Your task to perform on an android device: turn on the 24-hour format for clock Image 0: 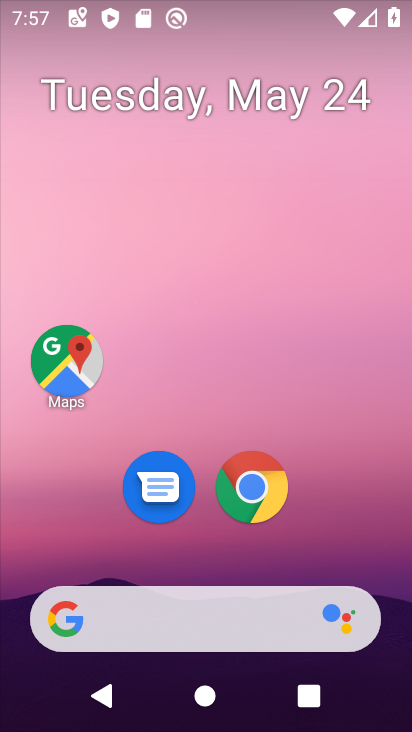
Step 0: drag from (93, 420) to (264, 117)
Your task to perform on an android device: turn on the 24-hour format for clock Image 1: 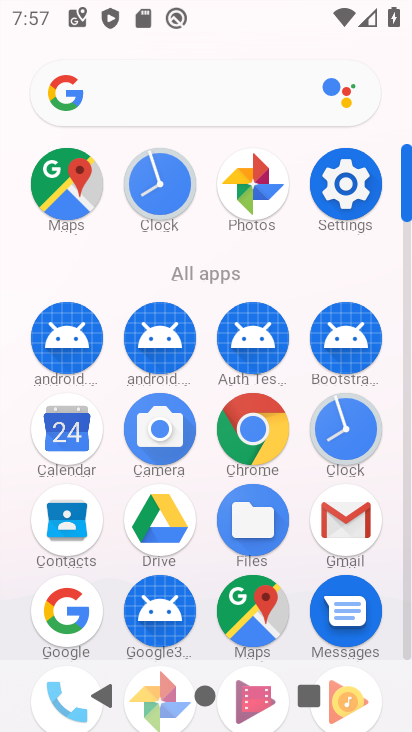
Step 1: click (348, 434)
Your task to perform on an android device: turn on the 24-hour format for clock Image 2: 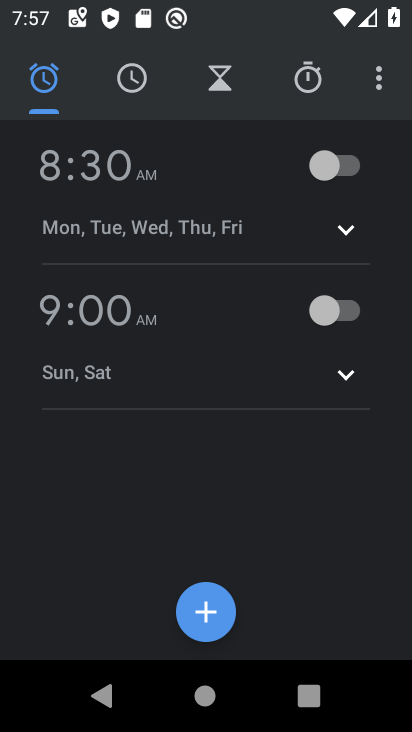
Step 2: click (377, 82)
Your task to perform on an android device: turn on the 24-hour format for clock Image 3: 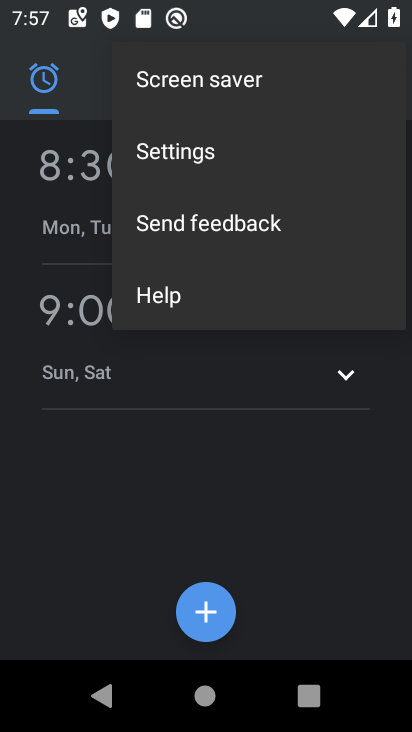
Step 3: click (221, 153)
Your task to perform on an android device: turn on the 24-hour format for clock Image 4: 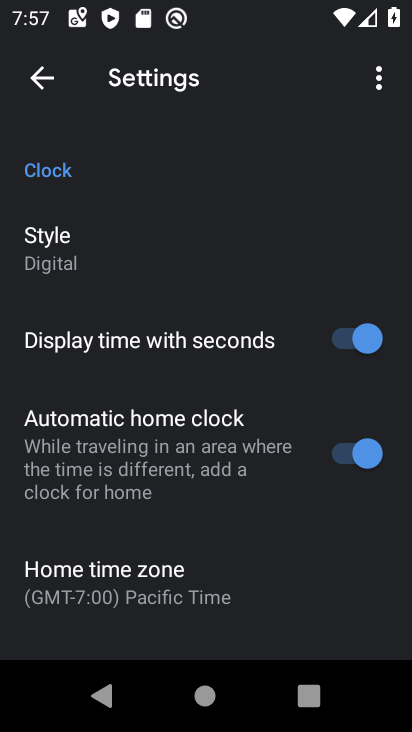
Step 4: drag from (95, 599) to (136, 215)
Your task to perform on an android device: turn on the 24-hour format for clock Image 5: 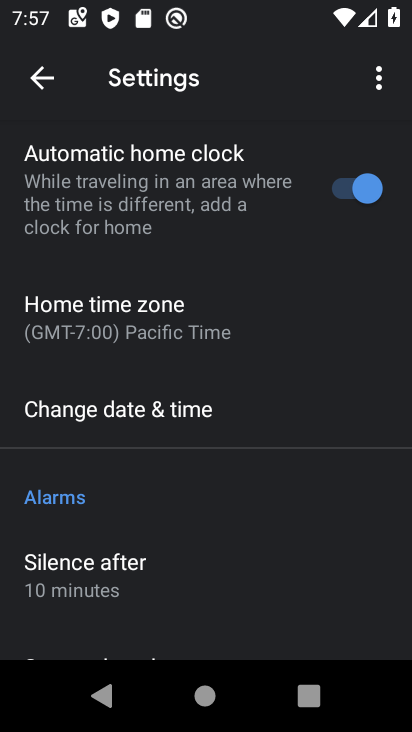
Step 5: click (157, 407)
Your task to perform on an android device: turn on the 24-hour format for clock Image 6: 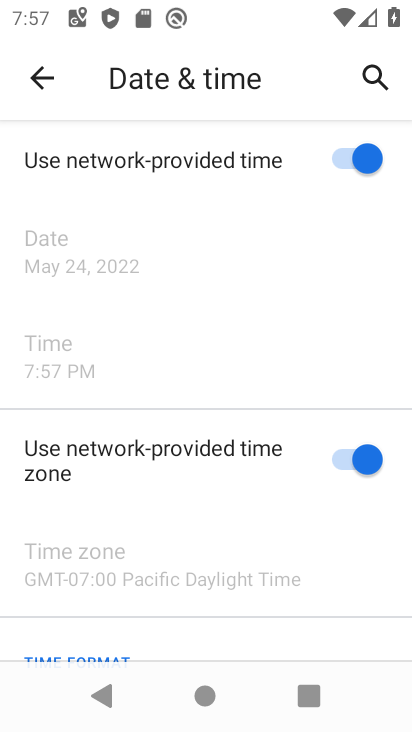
Step 6: drag from (14, 475) to (173, 152)
Your task to perform on an android device: turn on the 24-hour format for clock Image 7: 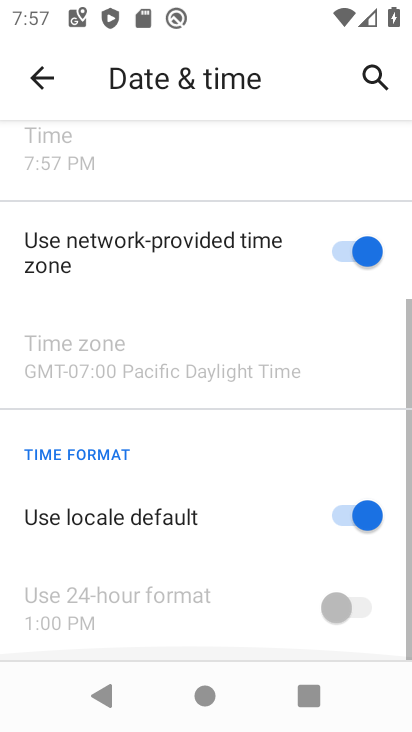
Step 7: drag from (175, 149) to (180, 364)
Your task to perform on an android device: turn on the 24-hour format for clock Image 8: 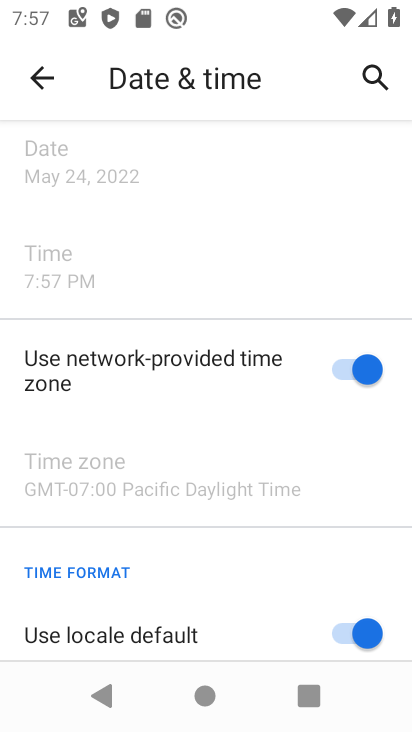
Step 8: drag from (109, 484) to (197, 247)
Your task to perform on an android device: turn on the 24-hour format for clock Image 9: 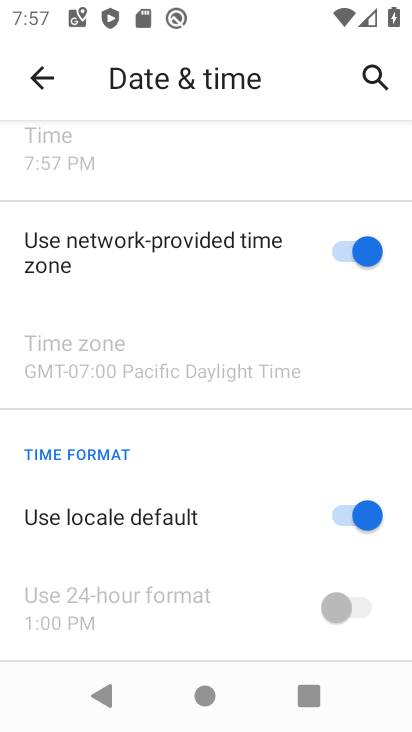
Step 9: click (372, 514)
Your task to perform on an android device: turn on the 24-hour format for clock Image 10: 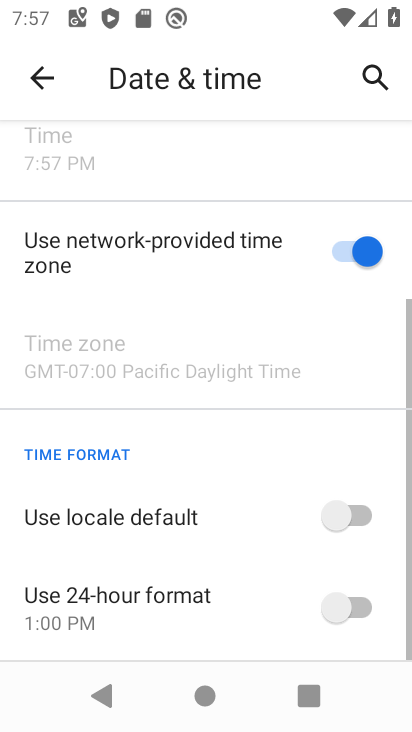
Step 10: click (348, 615)
Your task to perform on an android device: turn on the 24-hour format for clock Image 11: 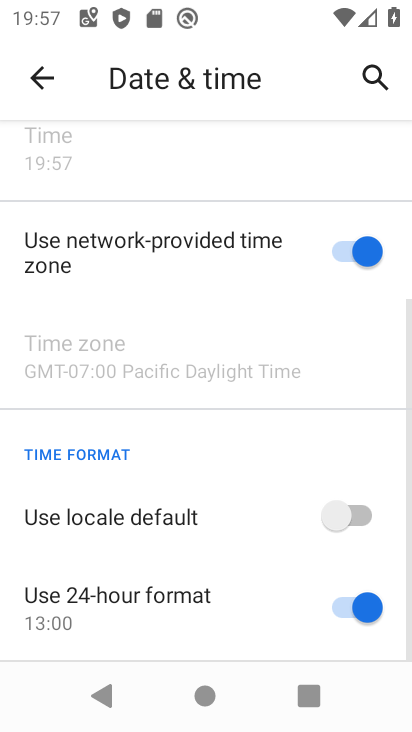
Step 11: task complete